Your task to perform on an android device: Do I have any events today? Image 0: 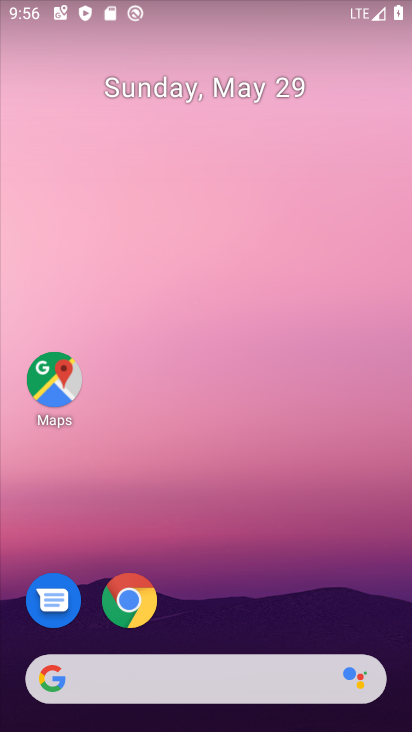
Step 0: drag from (364, 616) to (403, 710)
Your task to perform on an android device: Do I have any events today? Image 1: 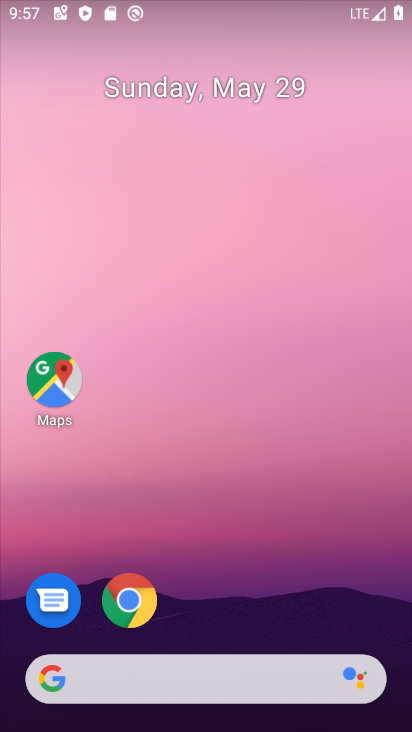
Step 1: drag from (375, 626) to (352, 74)
Your task to perform on an android device: Do I have any events today? Image 2: 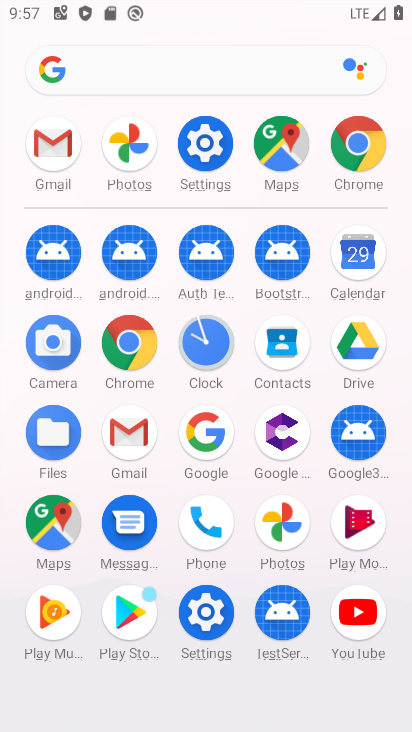
Step 2: click (339, 271)
Your task to perform on an android device: Do I have any events today? Image 3: 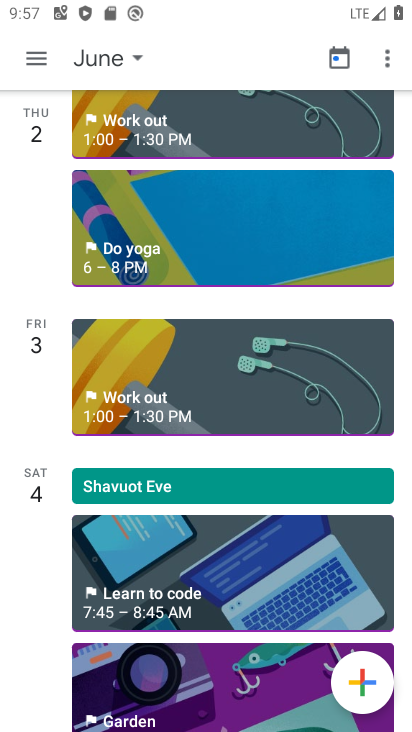
Step 3: click (153, 41)
Your task to perform on an android device: Do I have any events today? Image 4: 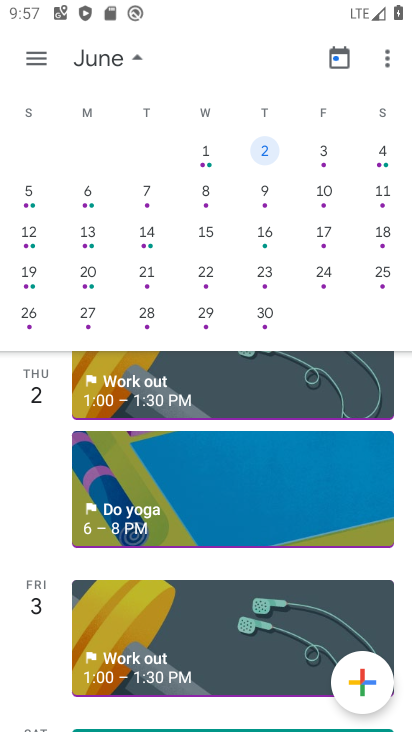
Step 4: drag from (150, 214) to (405, 204)
Your task to perform on an android device: Do I have any events today? Image 5: 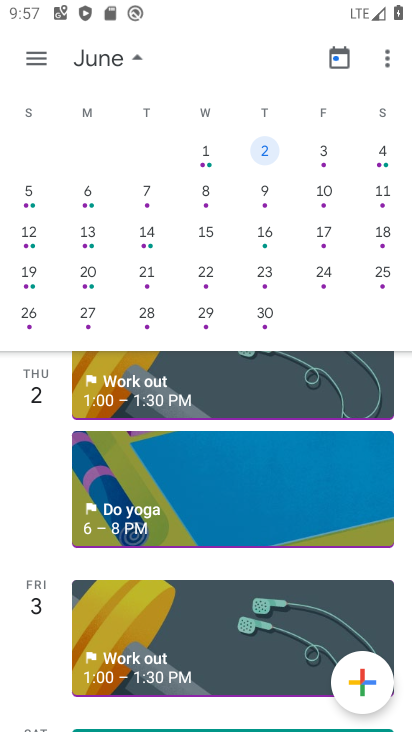
Step 5: drag from (115, 251) to (407, 230)
Your task to perform on an android device: Do I have any events today? Image 6: 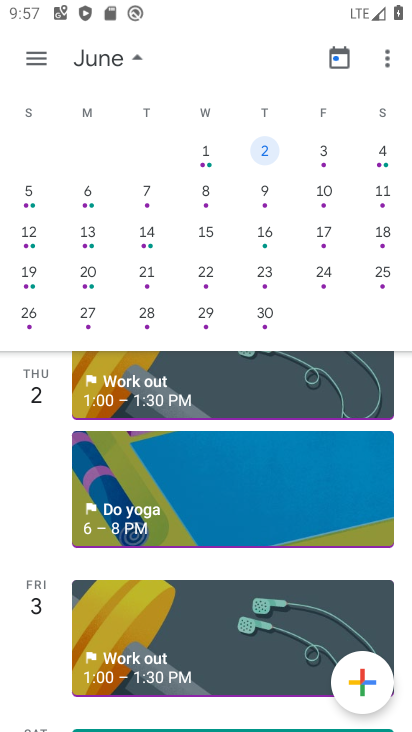
Step 6: drag from (64, 273) to (403, 260)
Your task to perform on an android device: Do I have any events today? Image 7: 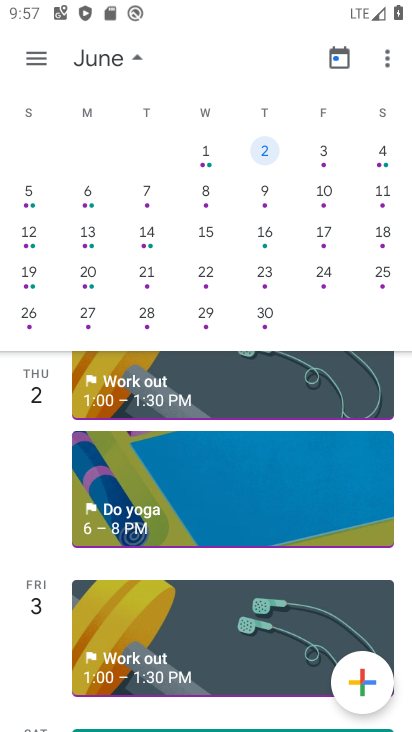
Step 7: drag from (87, 261) to (245, 167)
Your task to perform on an android device: Do I have any events today? Image 8: 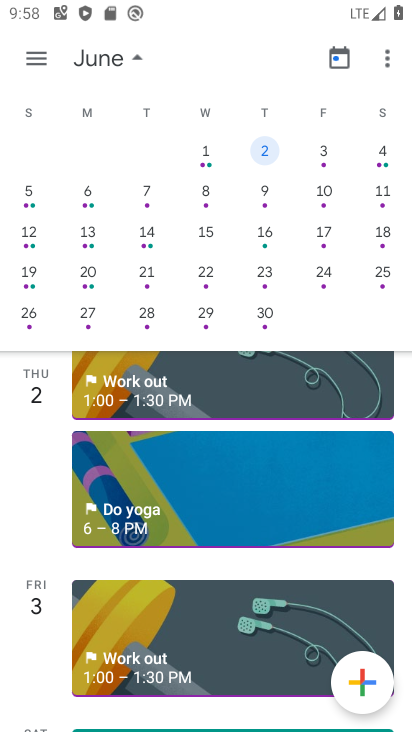
Step 8: drag from (62, 261) to (410, 196)
Your task to perform on an android device: Do I have any events today? Image 9: 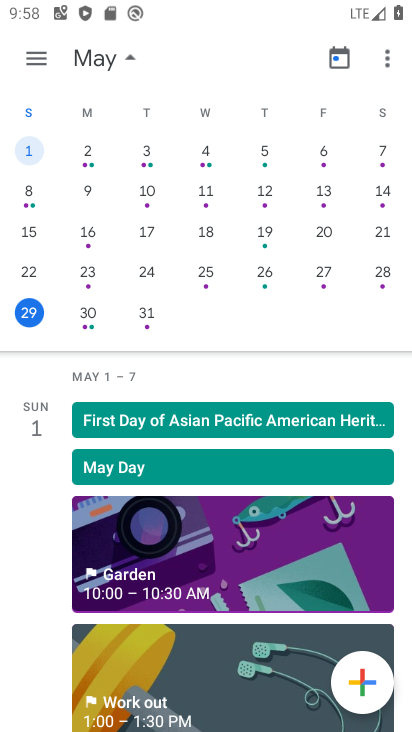
Step 9: click (89, 313)
Your task to perform on an android device: Do I have any events today? Image 10: 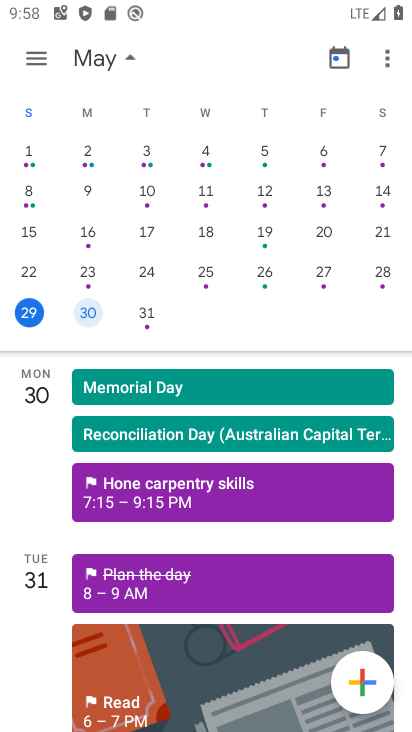
Step 10: click (134, 50)
Your task to perform on an android device: Do I have any events today? Image 11: 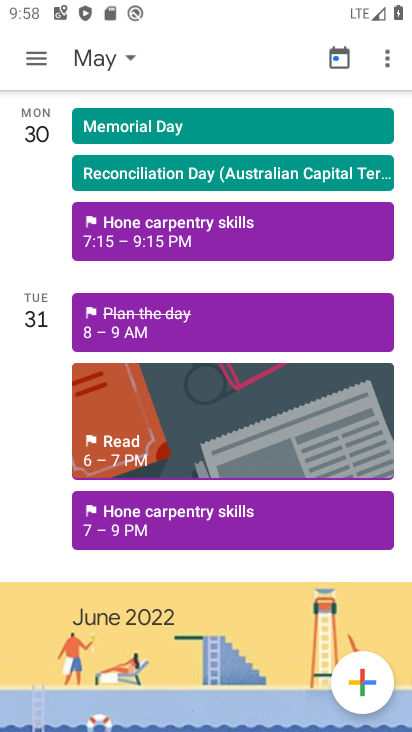
Step 11: task complete